Your task to perform on an android device: Go to network settings Image 0: 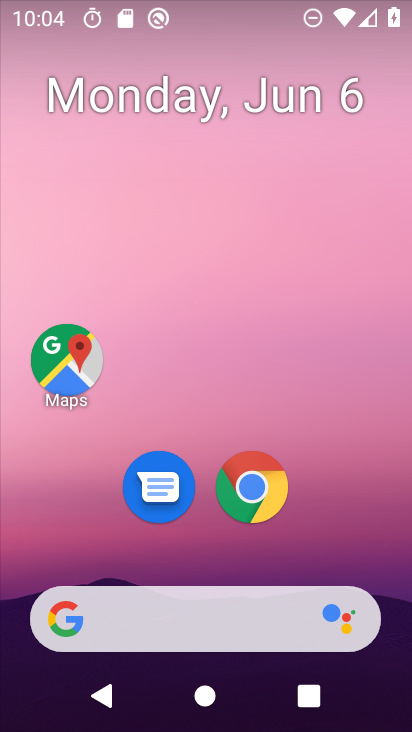
Step 0: click (408, 610)
Your task to perform on an android device: Go to network settings Image 1: 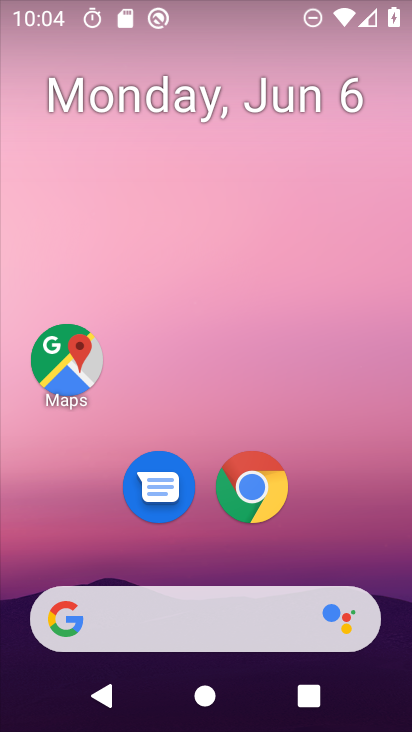
Step 1: drag from (376, 348) to (329, 56)
Your task to perform on an android device: Go to network settings Image 2: 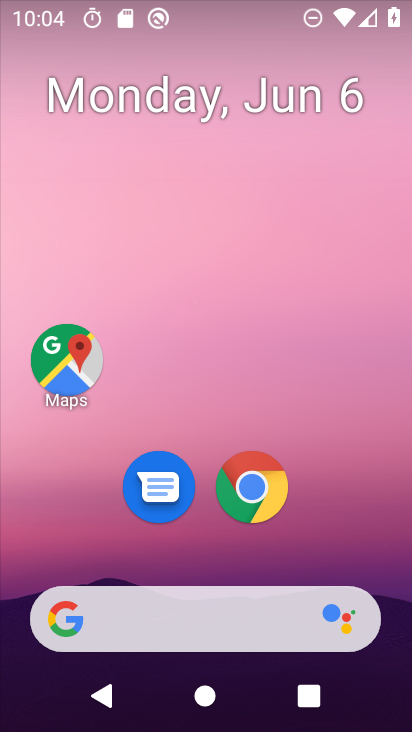
Step 2: drag from (377, 562) to (344, 318)
Your task to perform on an android device: Go to network settings Image 3: 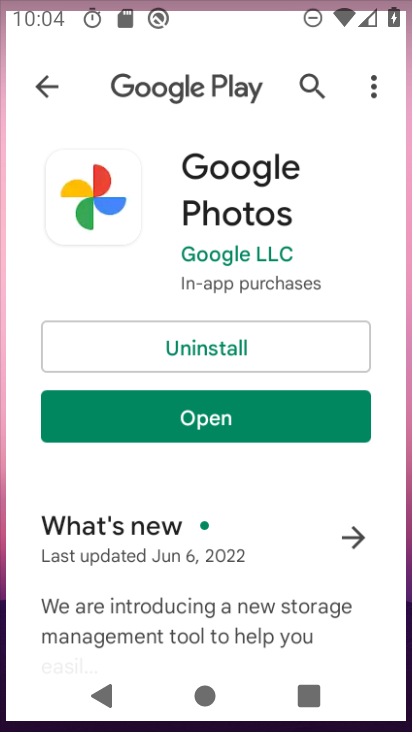
Step 3: click (218, 33)
Your task to perform on an android device: Go to network settings Image 4: 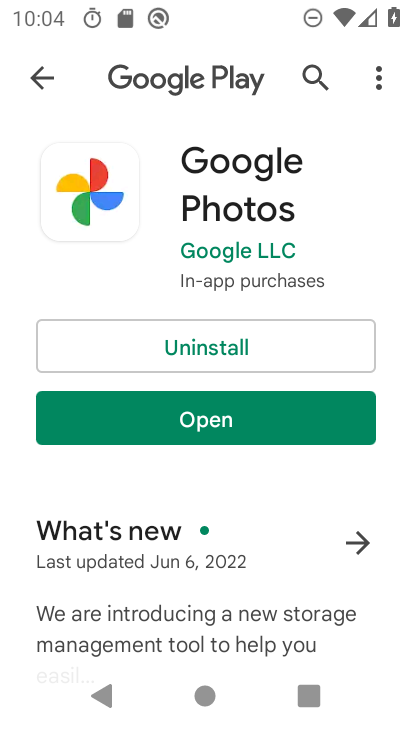
Step 4: press home button
Your task to perform on an android device: Go to network settings Image 5: 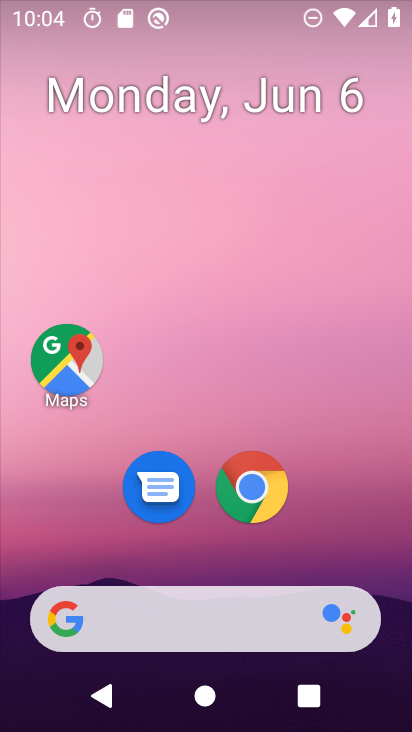
Step 5: drag from (400, 626) to (280, 55)
Your task to perform on an android device: Go to network settings Image 6: 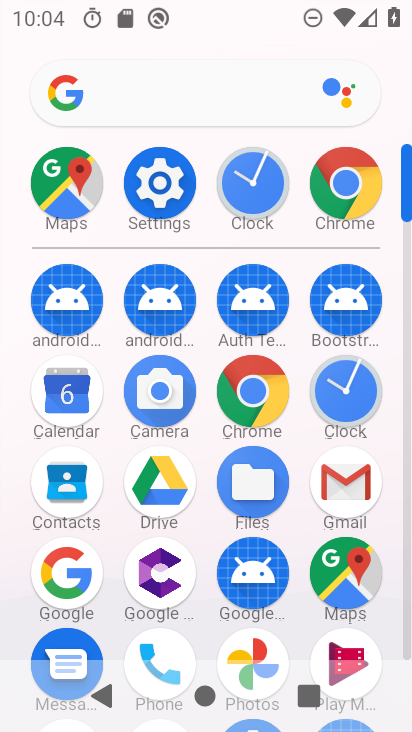
Step 6: click (177, 177)
Your task to perform on an android device: Go to network settings Image 7: 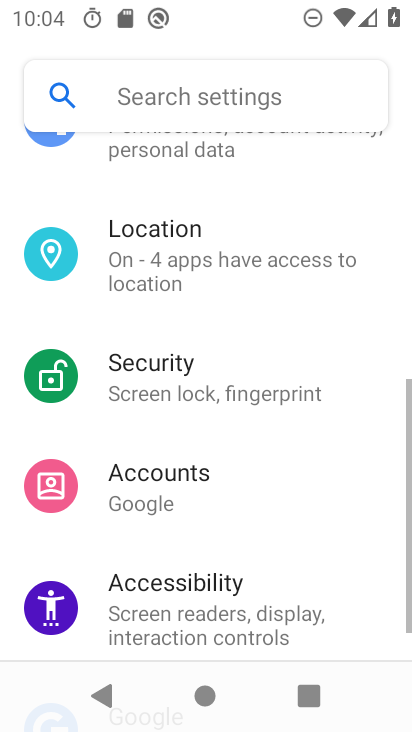
Step 7: drag from (211, 211) to (295, 675)
Your task to perform on an android device: Go to network settings Image 8: 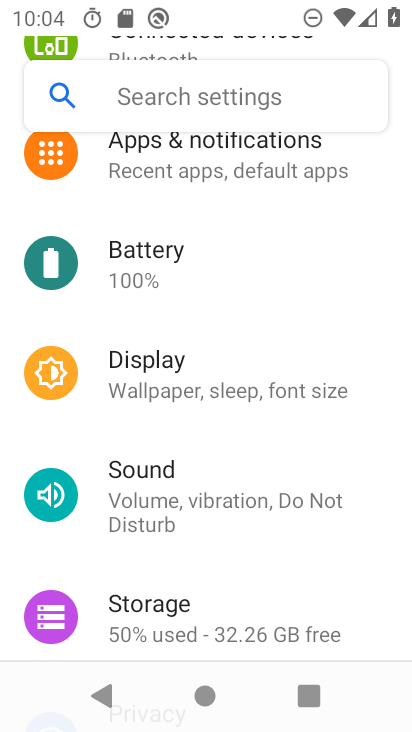
Step 8: drag from (202, 218) to (242, 710)
Your task to perform on an android device: Go to network settings Image 9: 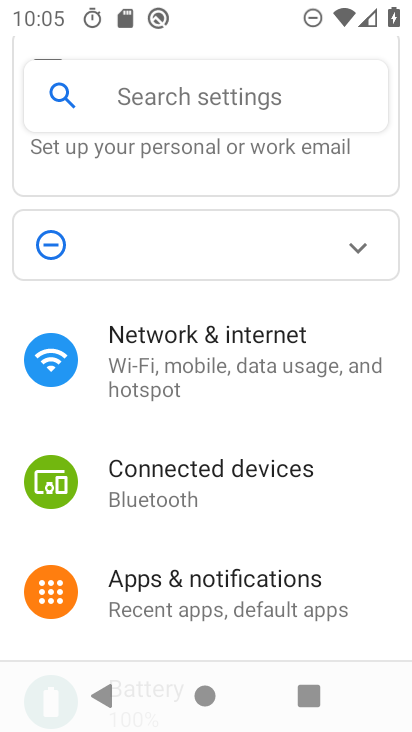
Step 9: click (200, 352)
Your task to perform on an android device: Go to network settings Image 10: 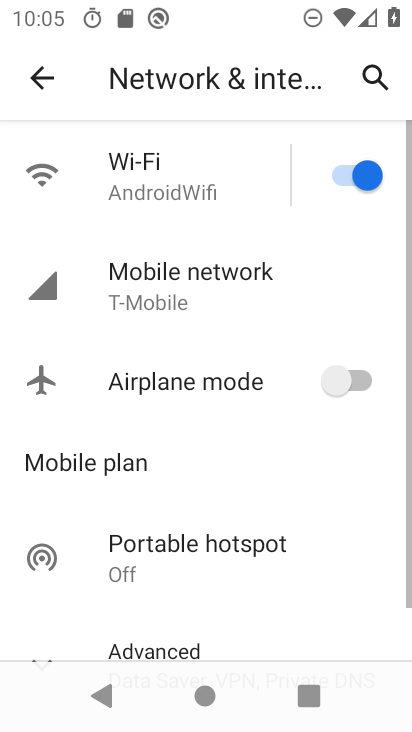
Step 10: task complete